Your task to perform on an android device: change the clock style Image 0: 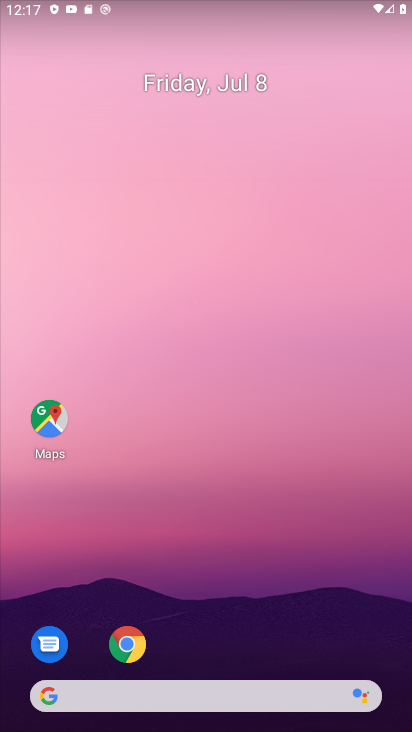
Step 0: drag from (210, 693) to (153, 166)
Your task to perform on an android device: change the clock style Image 1: 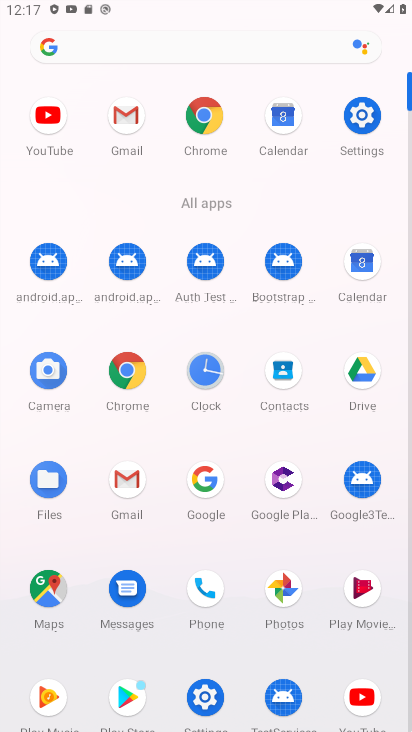
Step 1: click (210, 368)
Your task to perform on an android device: change the clock style Image 2: 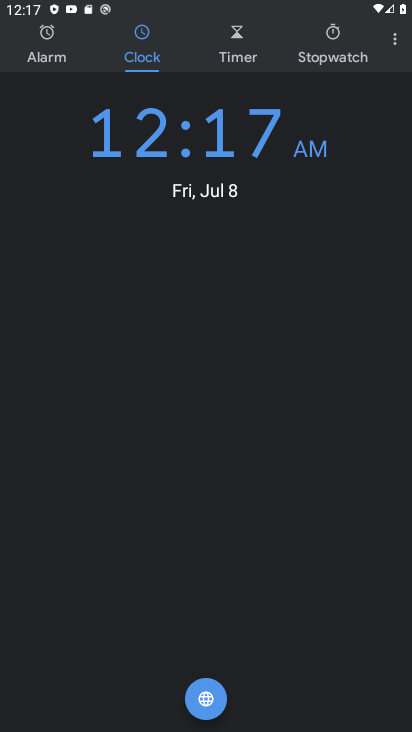
Step 2: click (402, 36)
Your task to perform on an android device: change the clock style Image 3: 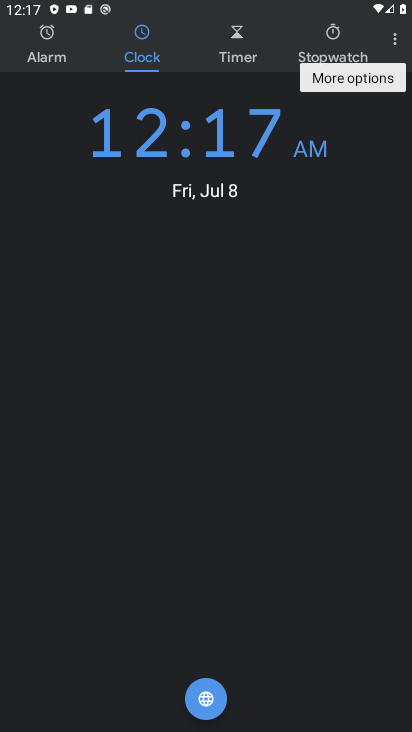
Step 3: click (402, 36)
Your task to perform on an android device: change the clock style Image 4: 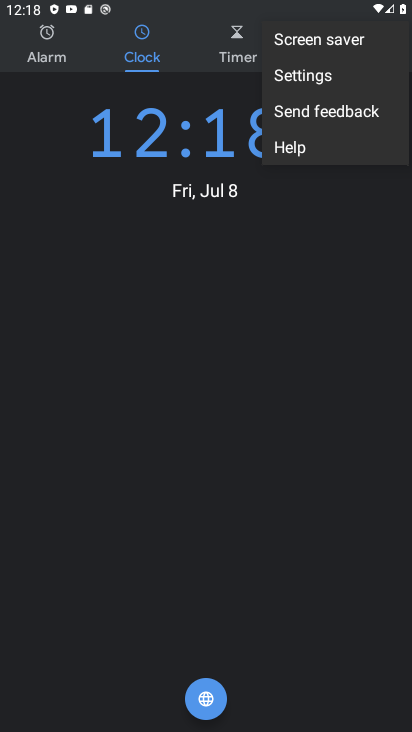
Step 4: click (302, 74)
Your task to perform on an android device: change the clock style Image 5: 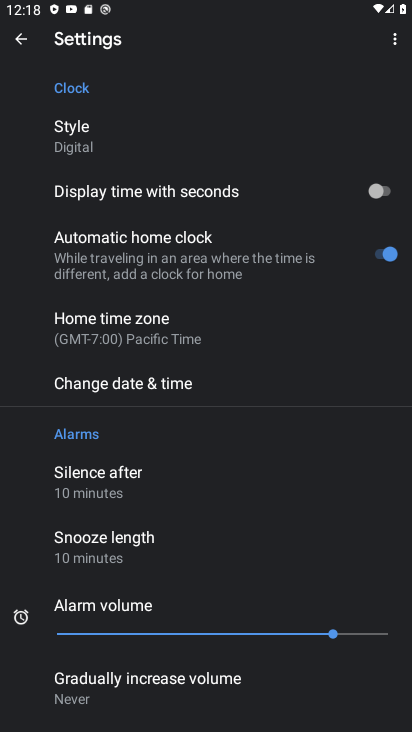
Step 5: click (116, 147)
Your task to perform on an android device: change the clock style Image 6: 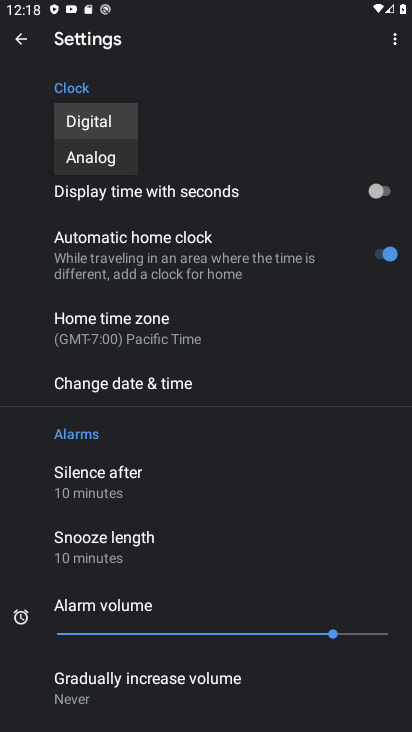
Step 6: click (120, 158)
Your task to perform on an android device: change the clock style Image 7: 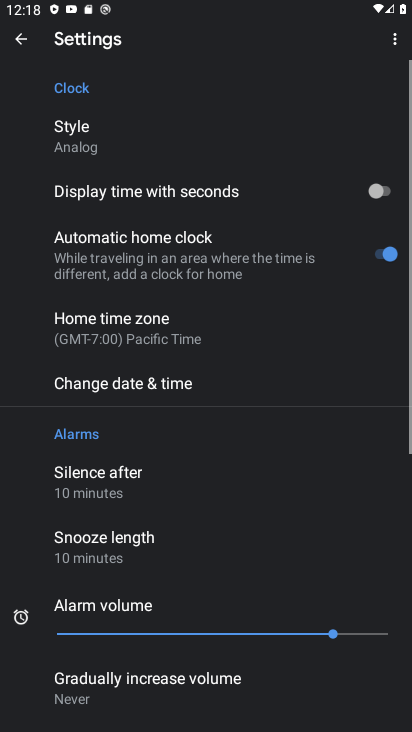
Step 7: task complete